Your task to perform on an android device: Search for Italian restaurants on Maps Image 0: 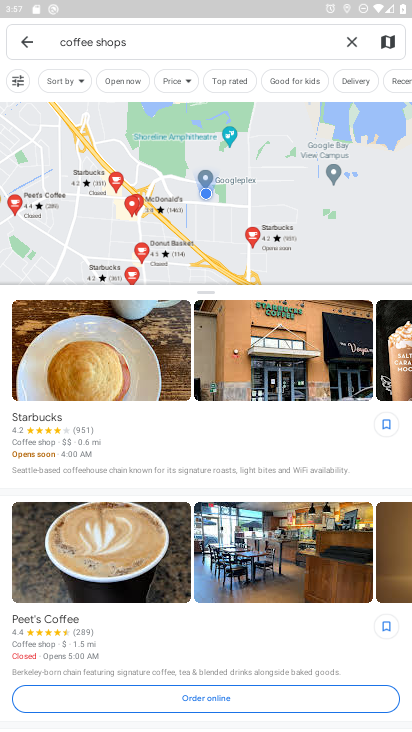
Step 0: click (242, 47)
Your task to perform on an android device: Search for Italian restaurants on Maps Image 1: 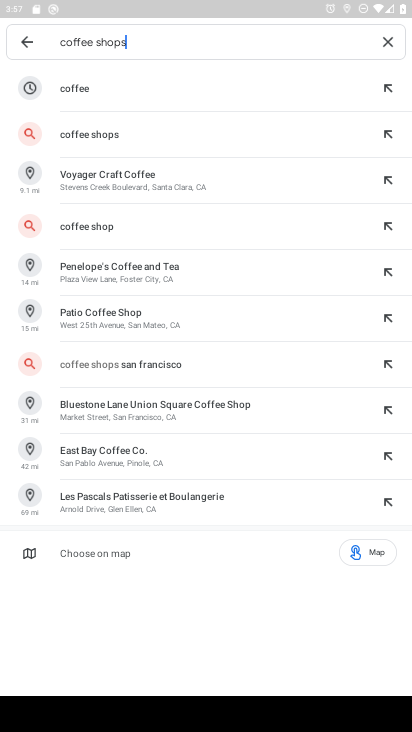
Step 1: click (387, 34)
Your task to perform on an android device: Search for Italian restaurants on Maps Image 2: 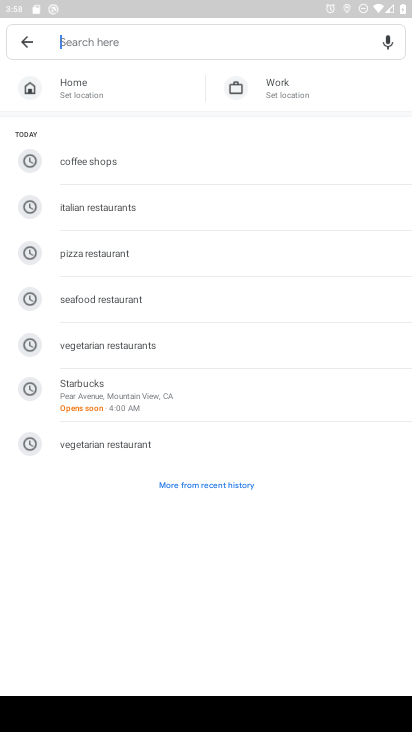
Step 2: type "Italian restaurants"
Your task to perform on an android device: Search for Italian restaurants on Maps Image 3: 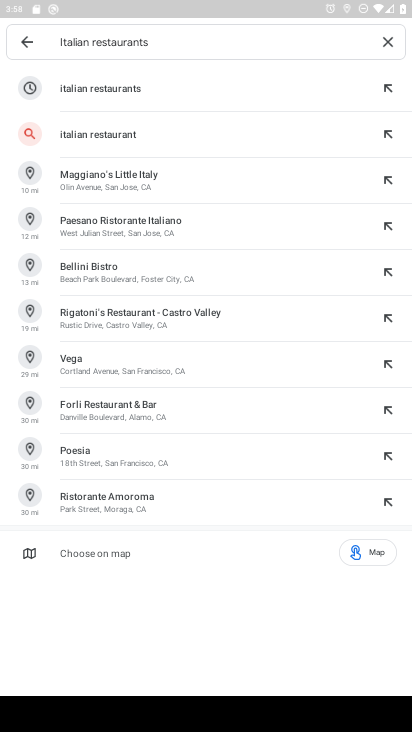
Step 3: click (150, 84)
Your task to perform on an android device: Search for Italian restaurants on Maps Image 4: 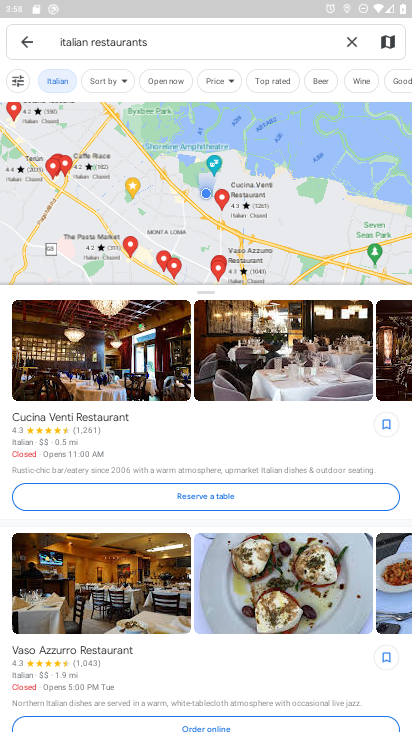
Step 4: task complete